Your task to perform on an android device: Go to CNN.com Image 0: 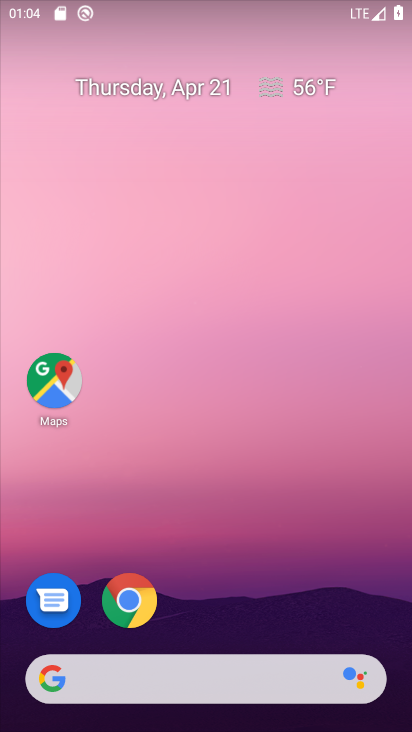
Step 0: click (250, 685)
Your task to perform on an android device: Go to CNN.com Image 1: 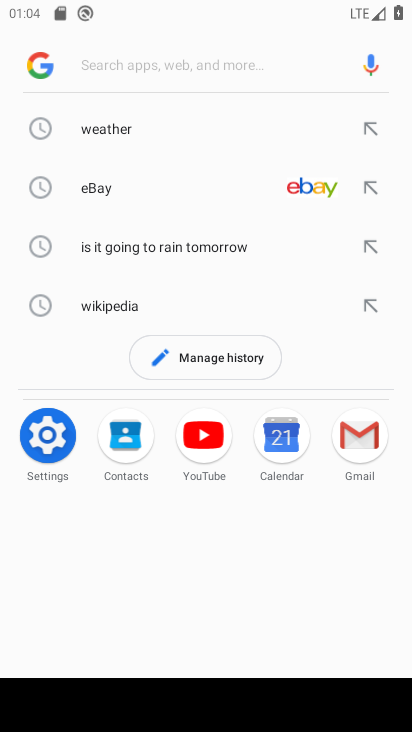
Step 1: type "cnn.com"
Your task to perform on an android device: Go to CNN.com Image 2: 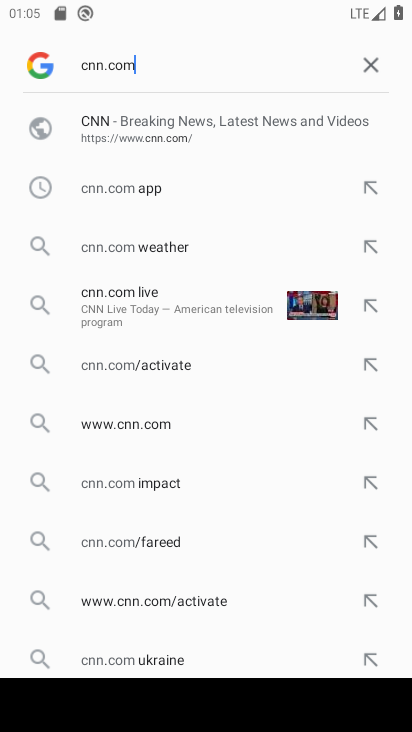
Step 2: click (136, 420)
Your task to perform on an android device: Go to CNN.com Image 3: 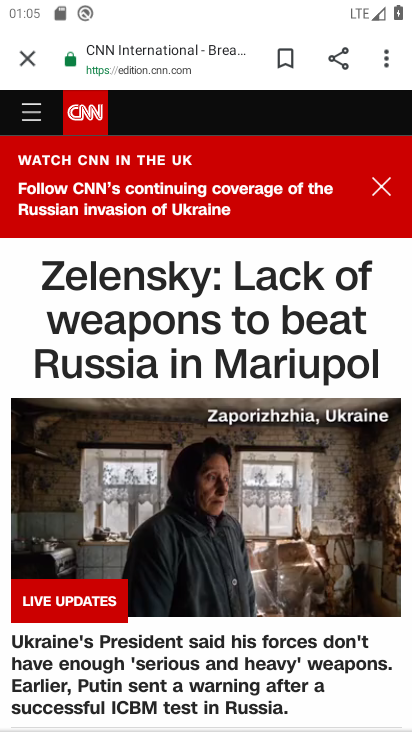
Step 3: task complete